Your task to perform on an android device: Open calendar and show me the third week of next month Image 0: 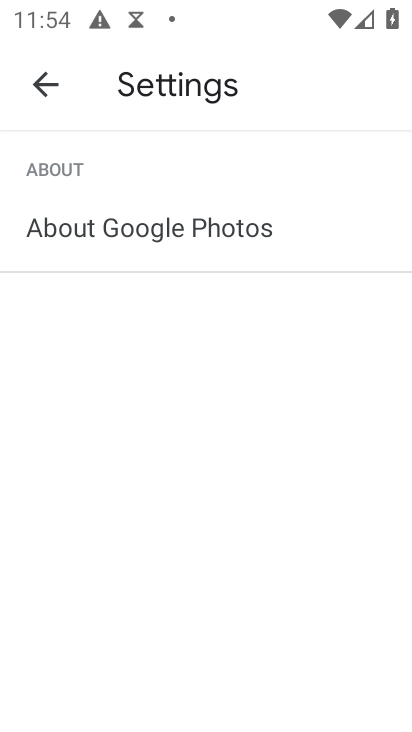
Step 0: press home button
Your task to perform on an android device: Open calendar and show me the third week of next month Image 1: 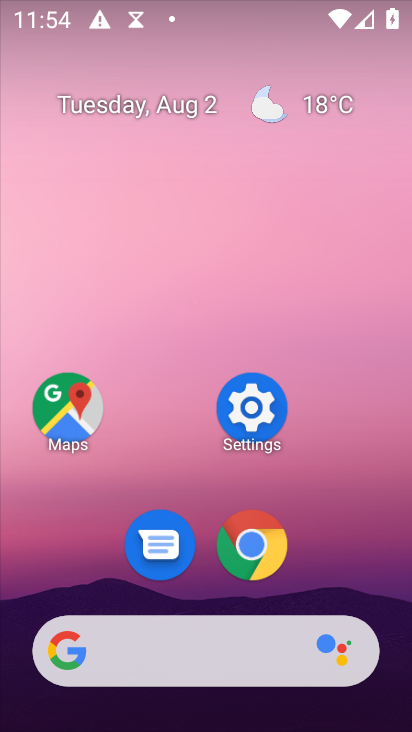
Step 1: drag from (121, 655) to (221, 95)
Your task to perform on an android device: Open calendar and show me the third week of next month Image 2: 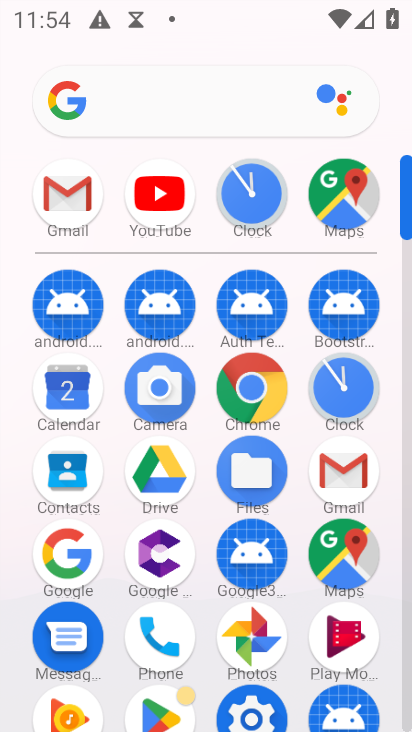
Step 2: click (63, 388)
Your task to perform on an android device: Open calendar and show me the third week of next month Image 3: 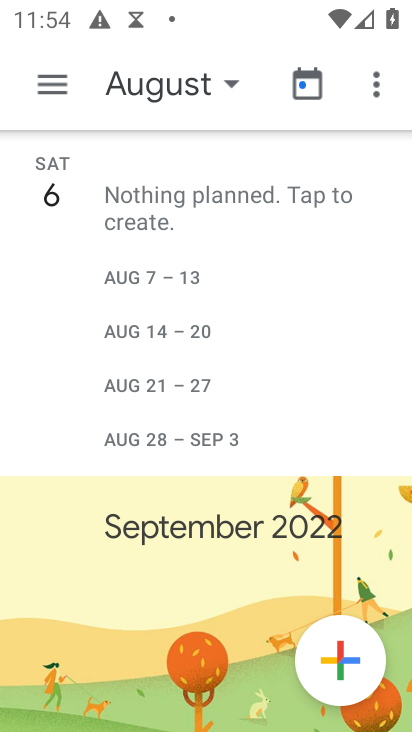
Step 3: click (163, 84)
Your task to perform on an android device: Open calendar and show me the third week of next month Image 4: 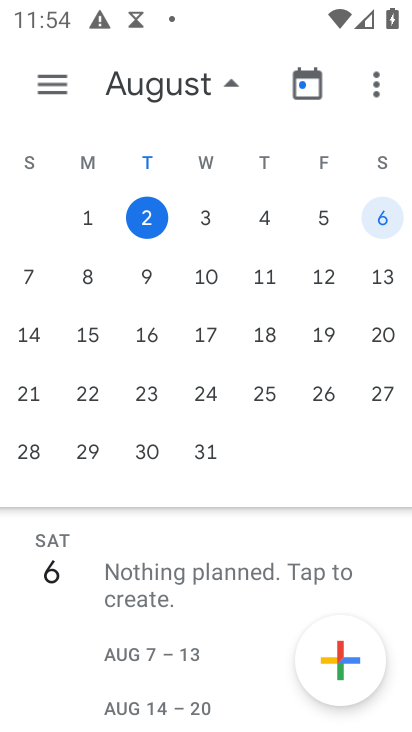
Step 4: drag from (352, 385) to (1, 323)
Your task to perform on an android device: Open calendar and show me the third week of next month Image 5: 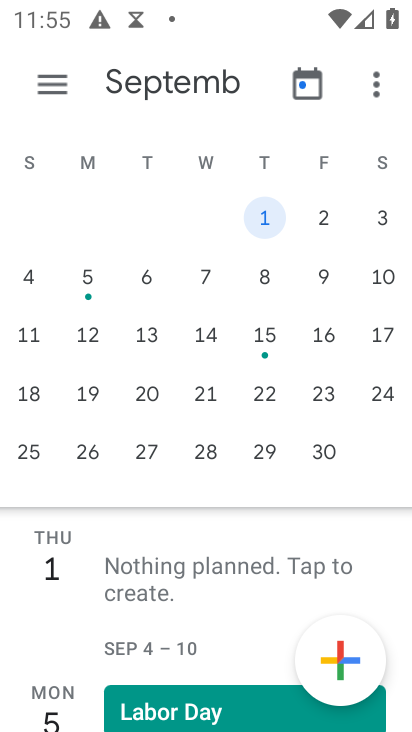
Step 5: click (24, 332)
Your task to perform on an android device: Open calendar and show me the third week of next month Image 6: 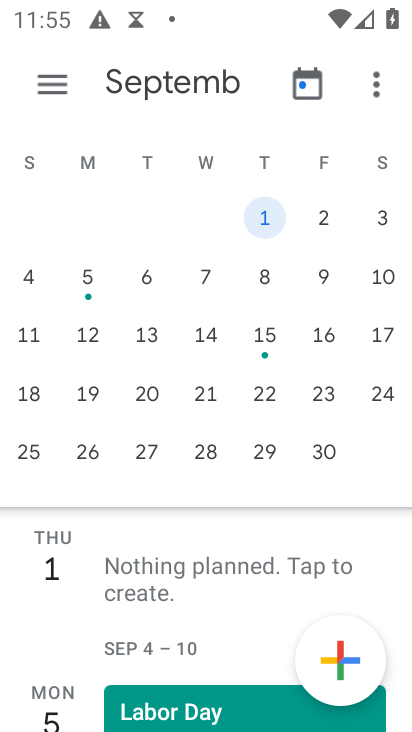
Step 6: click (23, 332)
Your task to perform on an android device: Open calendar and show me the third week of next month Image 7: 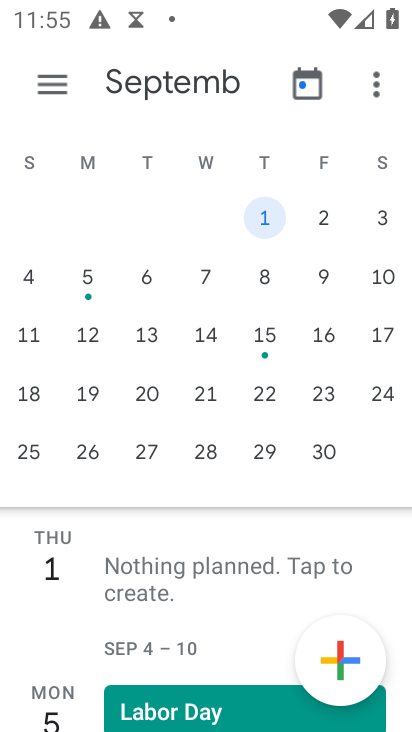
Step 7: click (34, 331)
Your task to perform on an android device: Open calendar and show me the third week of next month Image 8: 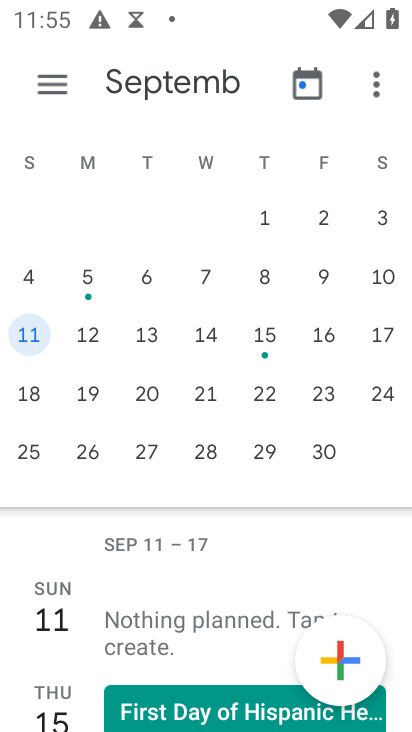
Step 8: click (55, 83)
Your task to perform on an android device: Open calendar and show me the third week of next month Image 9: 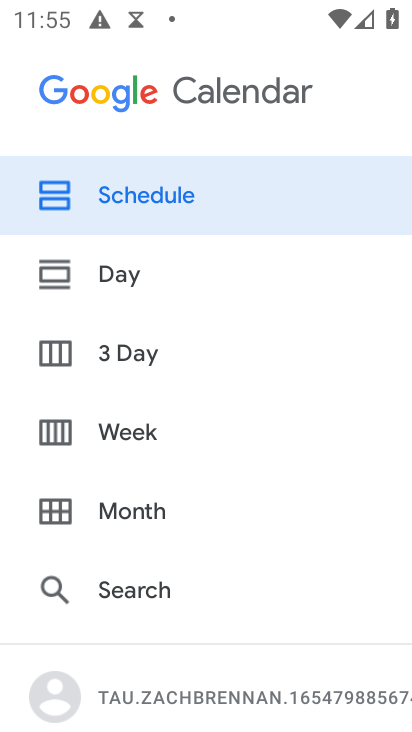
Step 9: click (150, 433)
Your task to perform on an android device: Open calendar and show me the third week of next month Image 10: 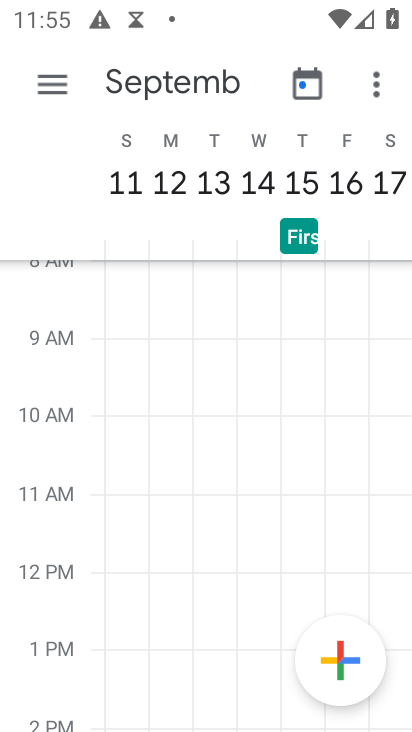
Step 10: task complete